Your task to perform on an android device: Open Google Maps Image 0: 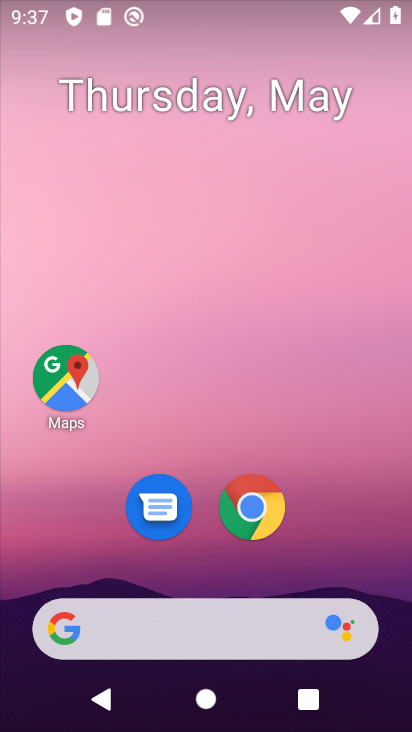
Step 0: click (72, 370)
Your task to perform on an android device: Open Google Maps Image 1: 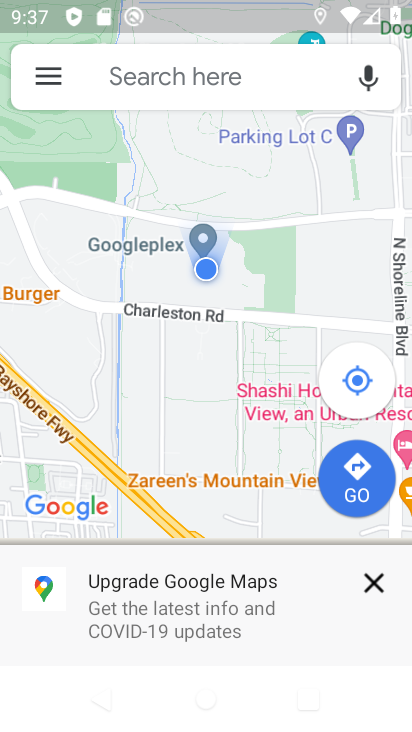
Step 1: task complete